Your task to perform on an android device: Go to display settings Image 0: 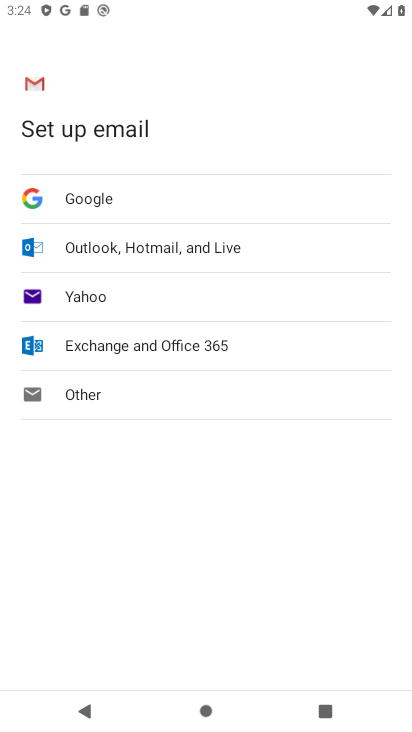
Step 0: press home button
Your task to perform on an android device: Go to display settings Image 1: 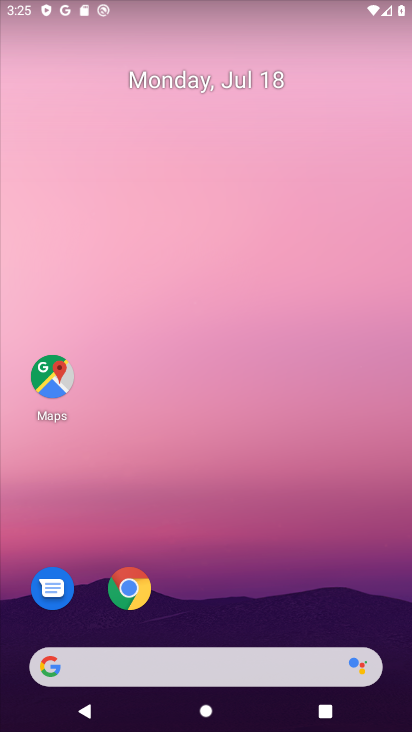
Step 1: drag from (216, 613) to (21, 198)
Your task to perform on an android device: Go to display settings Image 2: 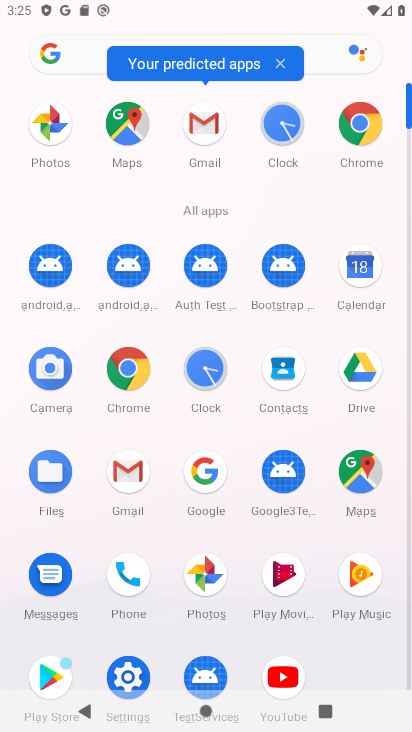
Step 2: click (123, 669)
Your task to perform on an android device: Go to display settings Image 3: 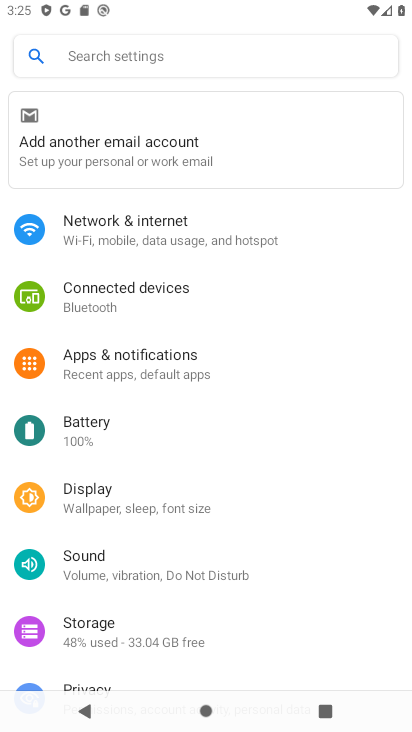
Step 3: click (119, 492)
Your task to perform on an android device: Go to display settings Image 4: 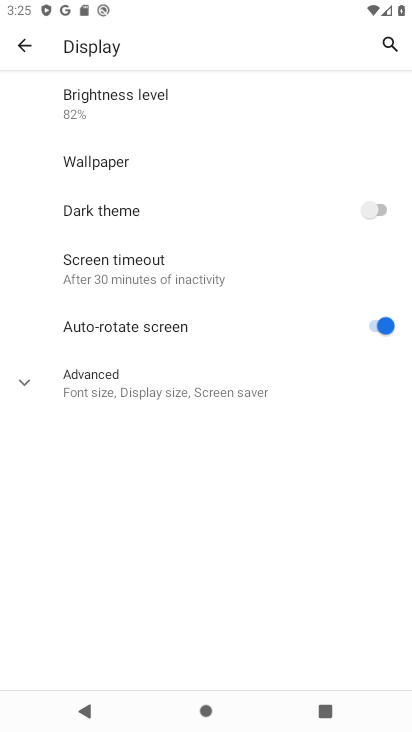
Step 4: click (25, 376)
Your task to perform on an android device: Go to display settings Image 5: 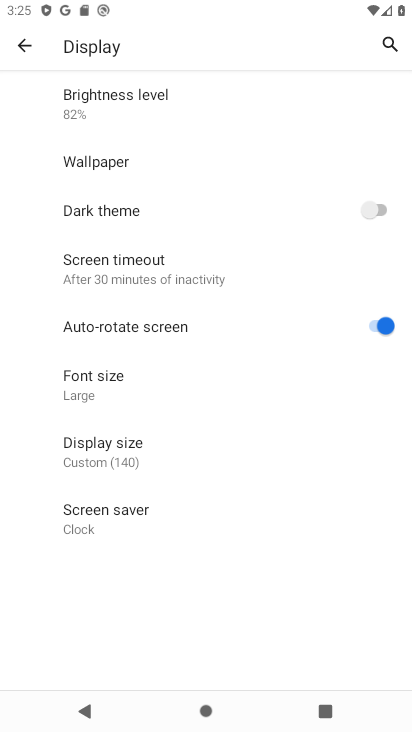
Step 5: task complete